Your task to perform on an android device: Set the phone to "Do not disturb". Image 0: 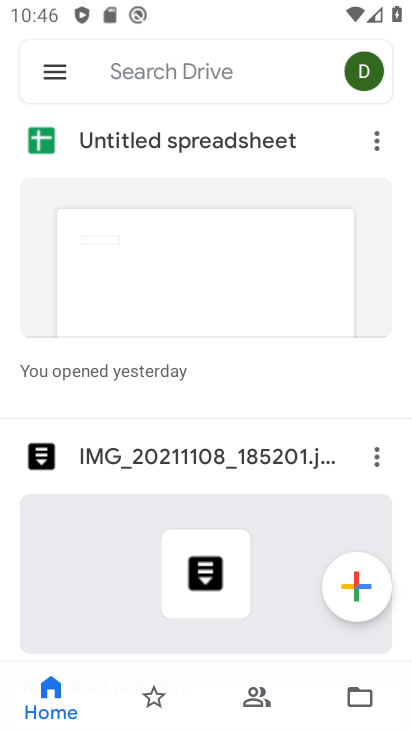
Step 0: press home button
Your task to perform on an android device: Set the phone to "Do not disturb". Image 1: 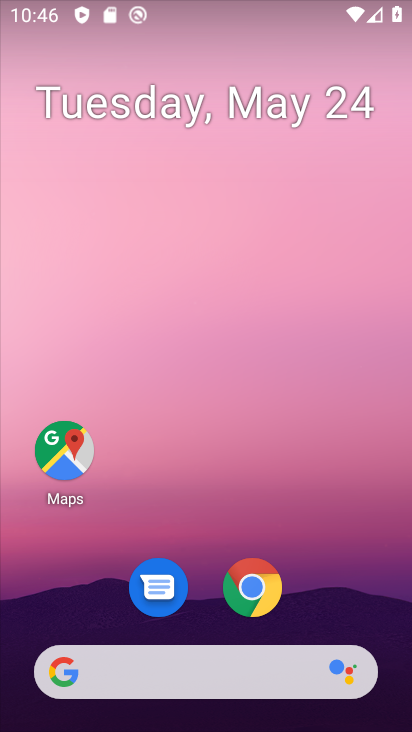
Step 1: drag from (370, 637) to (359, 144)
Your task to perform on an android device: Set the phone to "Do not disturb". Image 2: 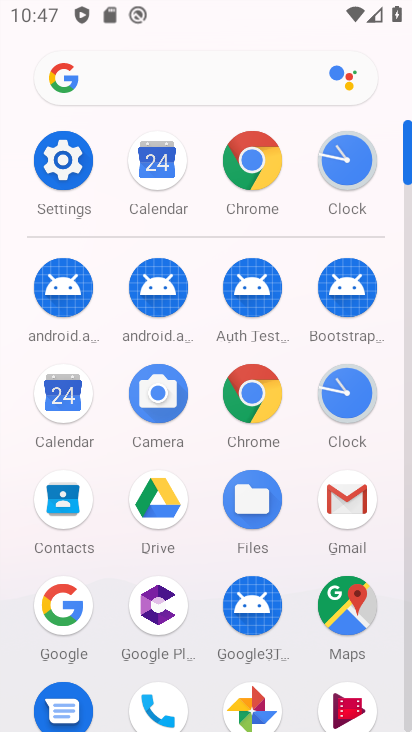
Step 2: drag from (160, 3) to (159, 362)
Your task to perform on an android device: Set the phone to "Do not disturb". Image 3: 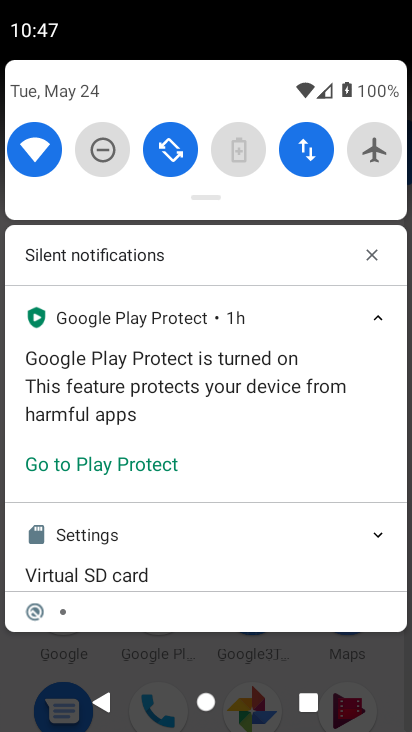
Step 3: click (104, 163)
Your task to perform on an android device: Set the phone to "Do not disturb". Image 4: 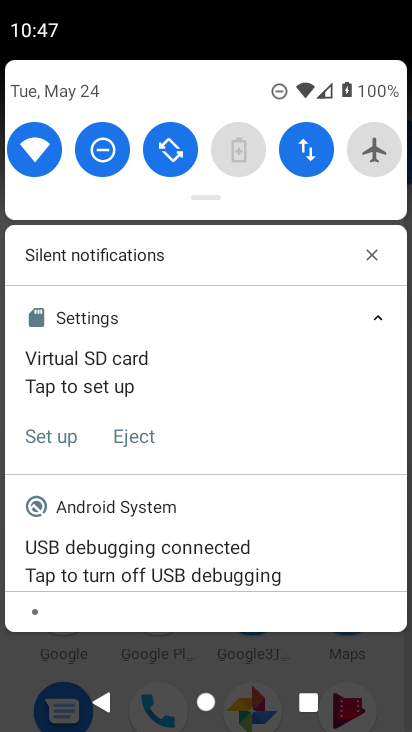
Step 4: task complete